Your task to perform on an android device: Open the web browser Image 0: 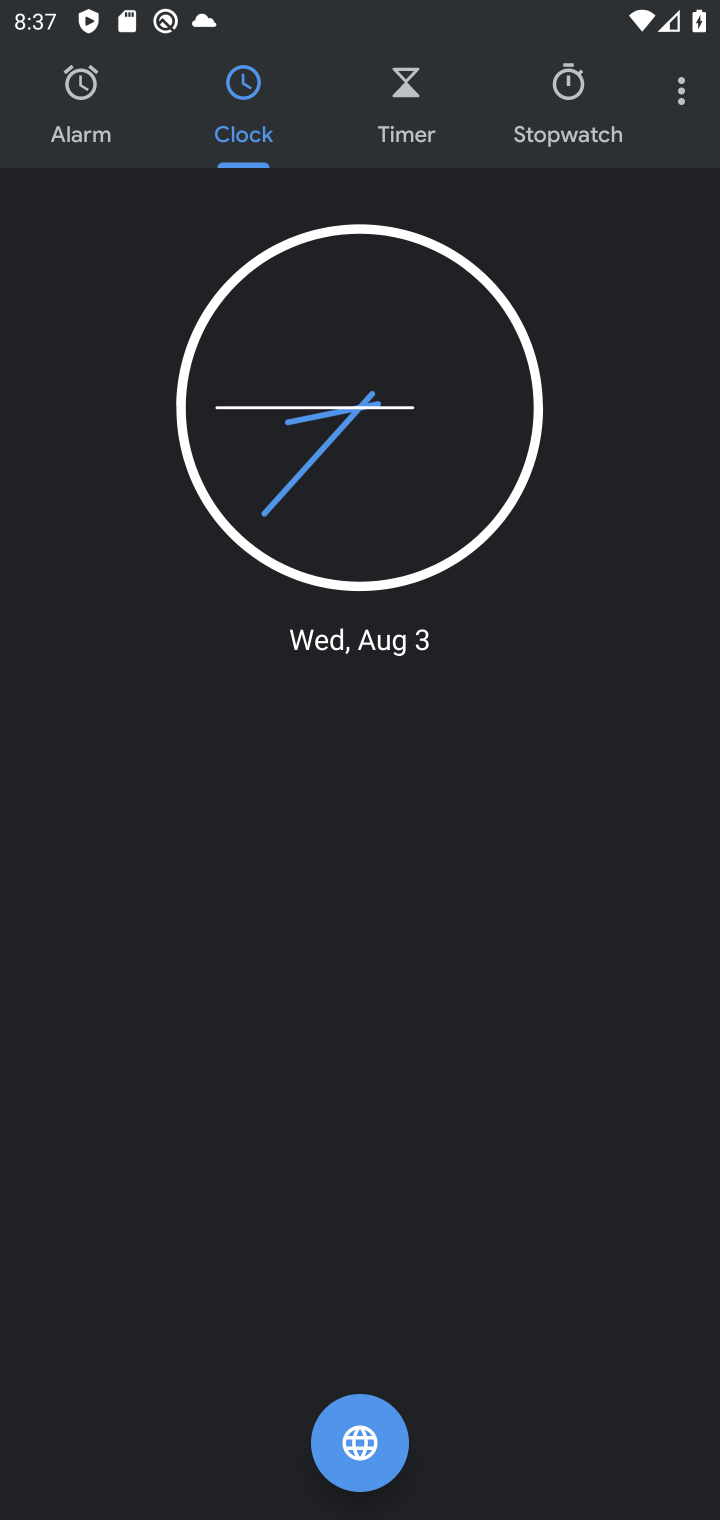
Step 0: press home button
Your task to perform on an android device: Open the web browser Image 1: 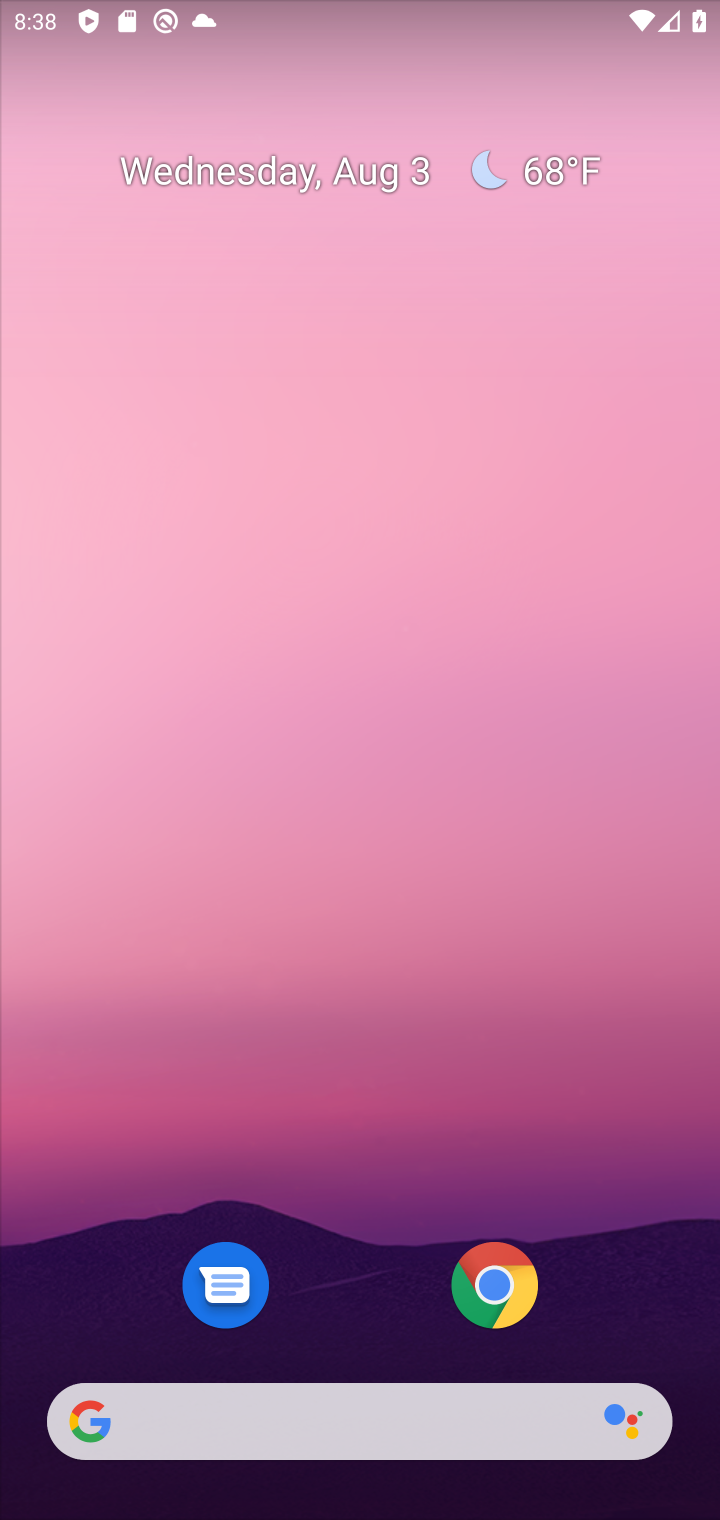
Step 1: click (506, 1283)
Your task to perform on an android device: Open the web browser Image 2: 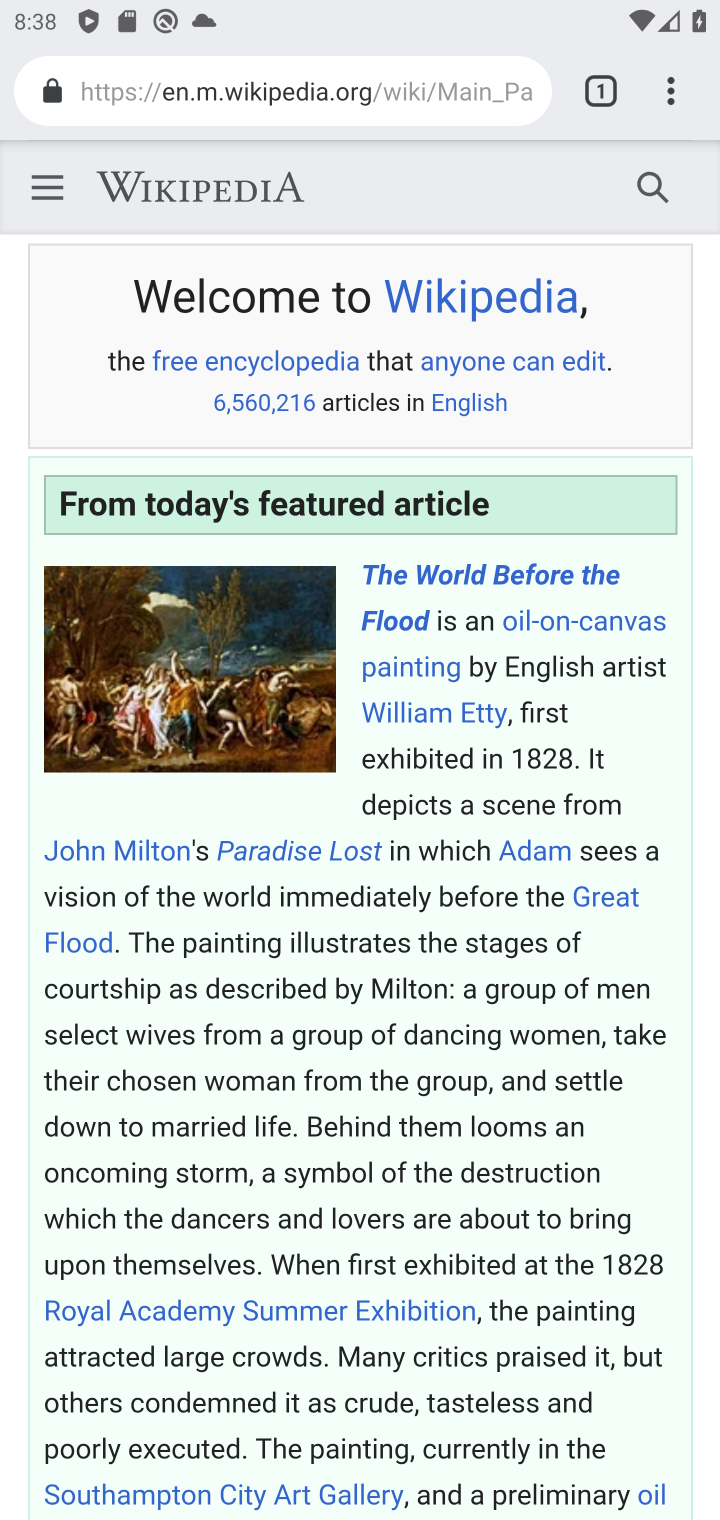
Step 2: task complete